Your task to perform on an android device: turn on data saver in the chrome app Image 0: 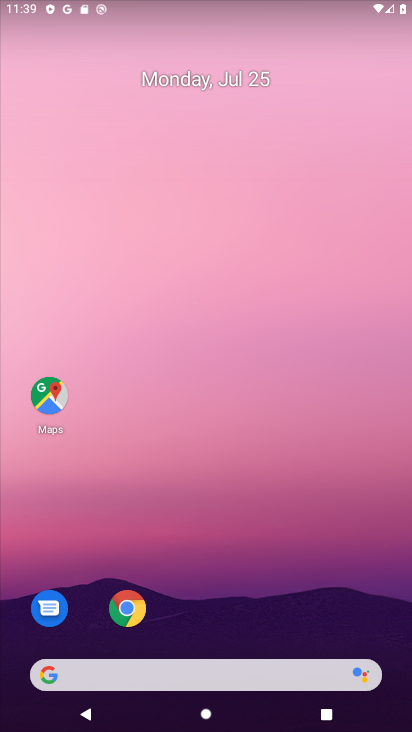
Step 0: drag from (209, 623) to (256, 168)
Your task to perform on an android device: turn on data saver in the chrome app Image 1: 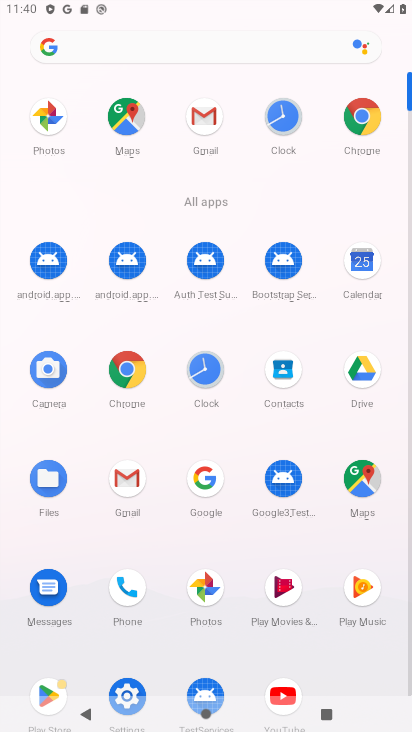
Step 1: click (363, 122)
Your task to perform on an android device: turn on data saver in the chrome app Image 2: 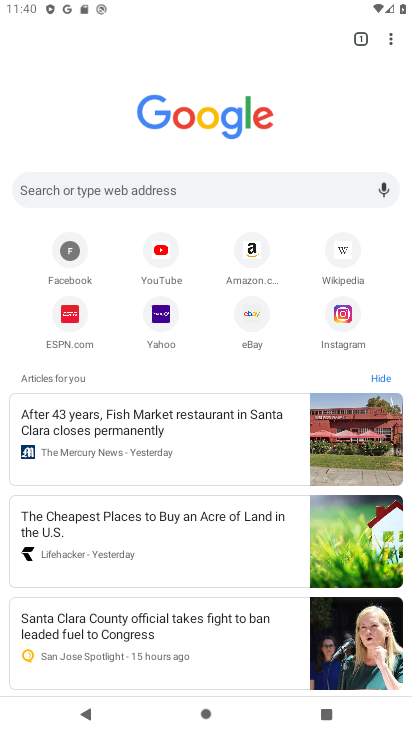
Step 2: click (389, 42)
Your task to perform on an android device: turn on data saver in the chrome app Image 3: 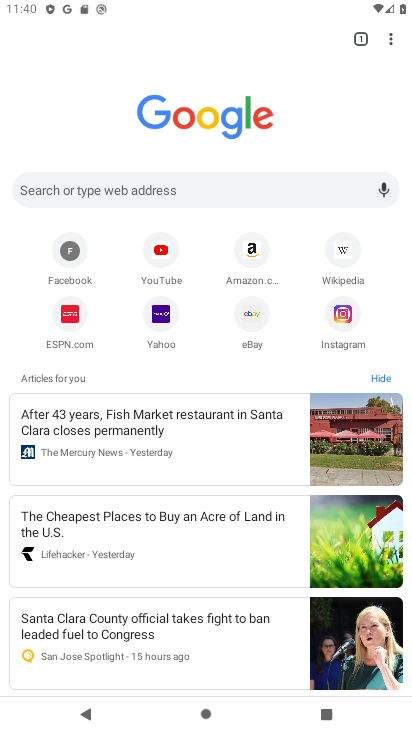
Step 3: click (389, 44)
Your task to perform on an android device: turn on data saver in the chrome app Image 4: 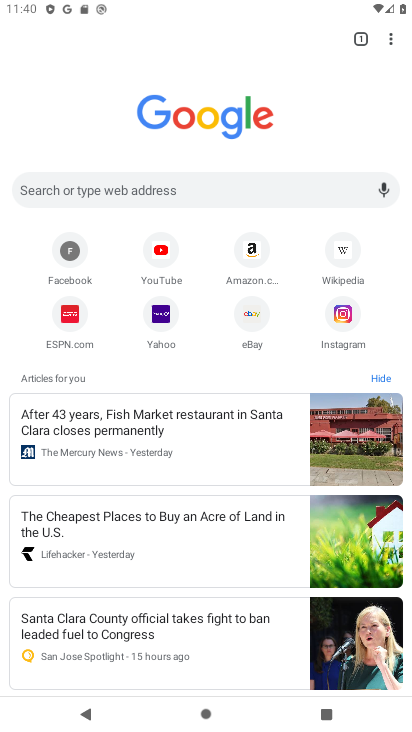
Step 4: click (389, 38)
Your task to perform on an android device: turn on data saver in the chrome app Image 5: 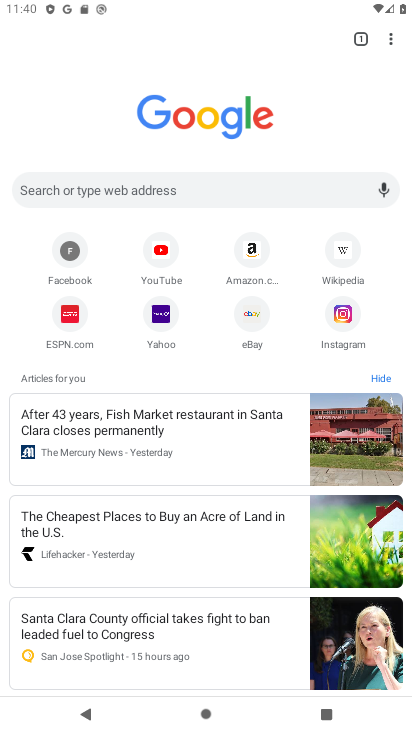
Step 5: click (389, 38)
Your task to perform on an android device: turn on data saver in the chrome app Image 6: 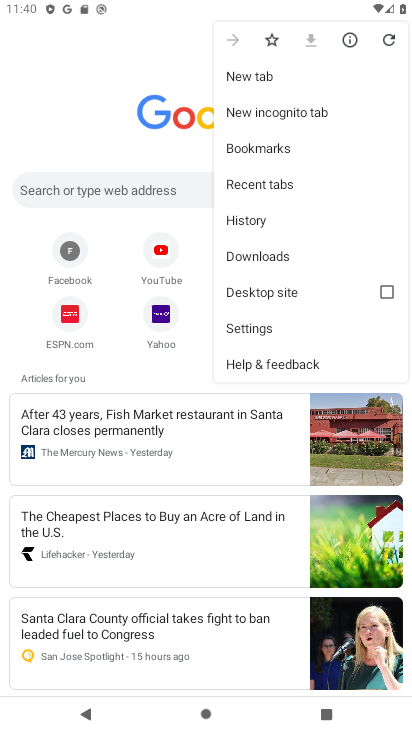
Step 6: click (267, 330)
Your task to perform on an android device: turn on data saver in the chrome app Image 7: 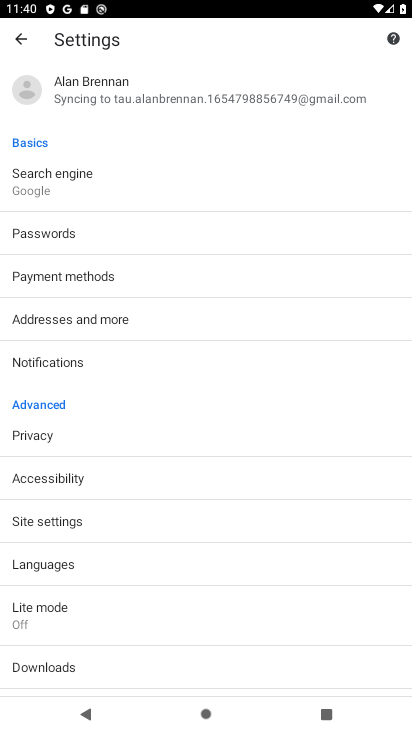
Step 7: click (45, 617)
Your task to perform on an android device: turn on data saver in the chrome app Image 8: 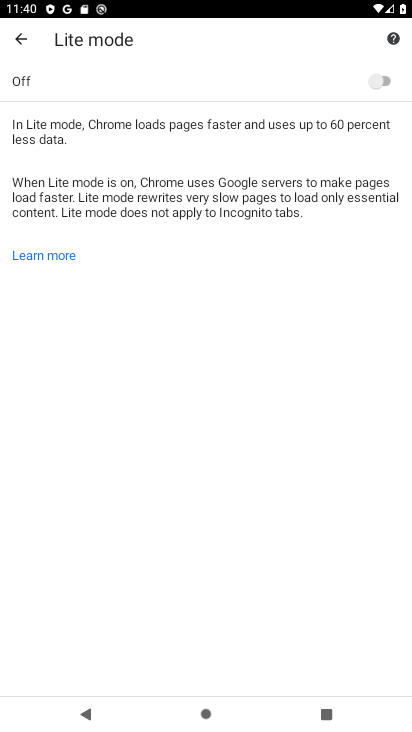
Step 8: click (380, 83)
Your task to perform on an android device: turn on data saver in the chrome app Image 9: 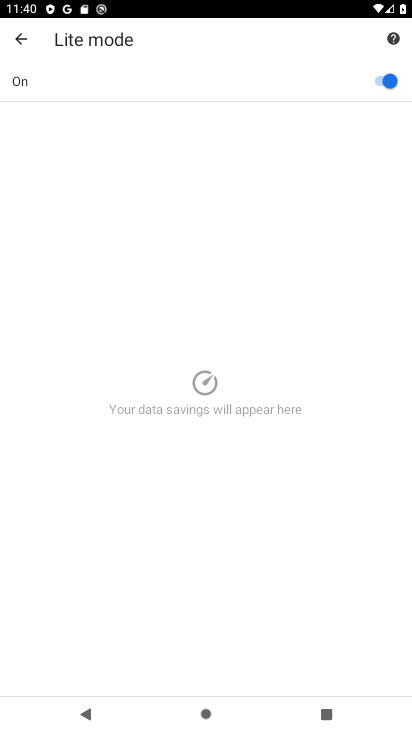
Step 9: task complete